Your task to perform on an android device: install app "Messages" Image 0: 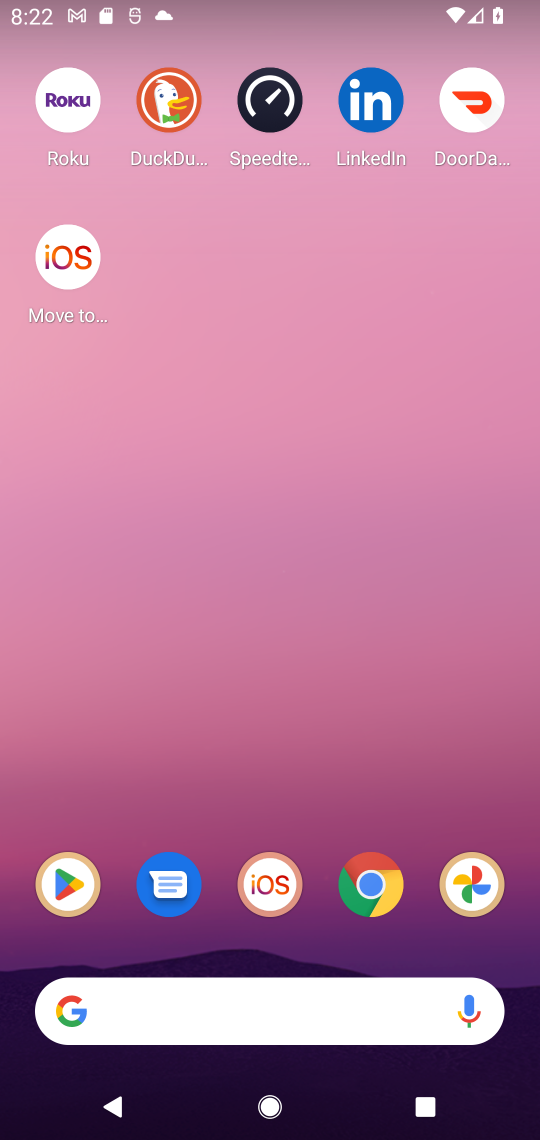
Step 0: click (54, 899)
Your task to perform on an android device: install app "Messages" Image 1: 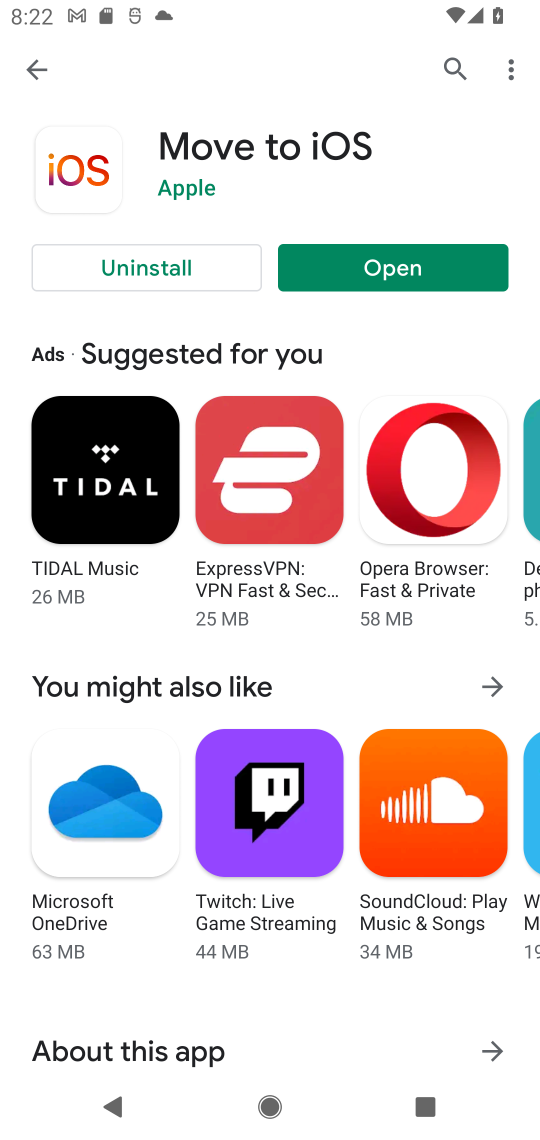
Step 1: click (451, 52)
Your task to perform on an android device: install app "Messages" Image 2: 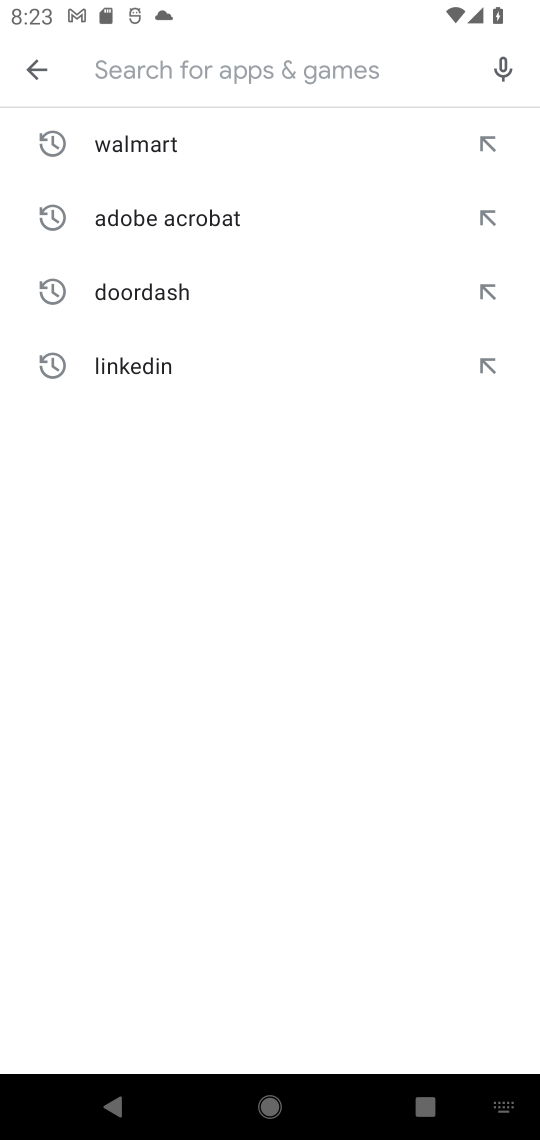
Step 2: type "messages"
Your task to perform on an android device: install app "Messages" Image 3: 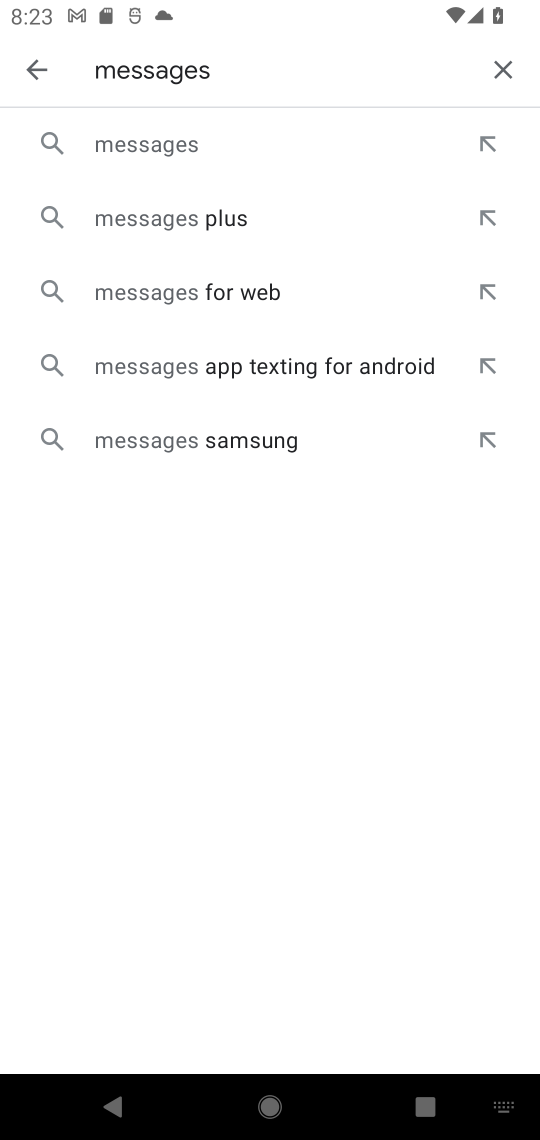
Step 3: click (193, 147)
Your task to perform on an android device: install app "Messages" Image 4: 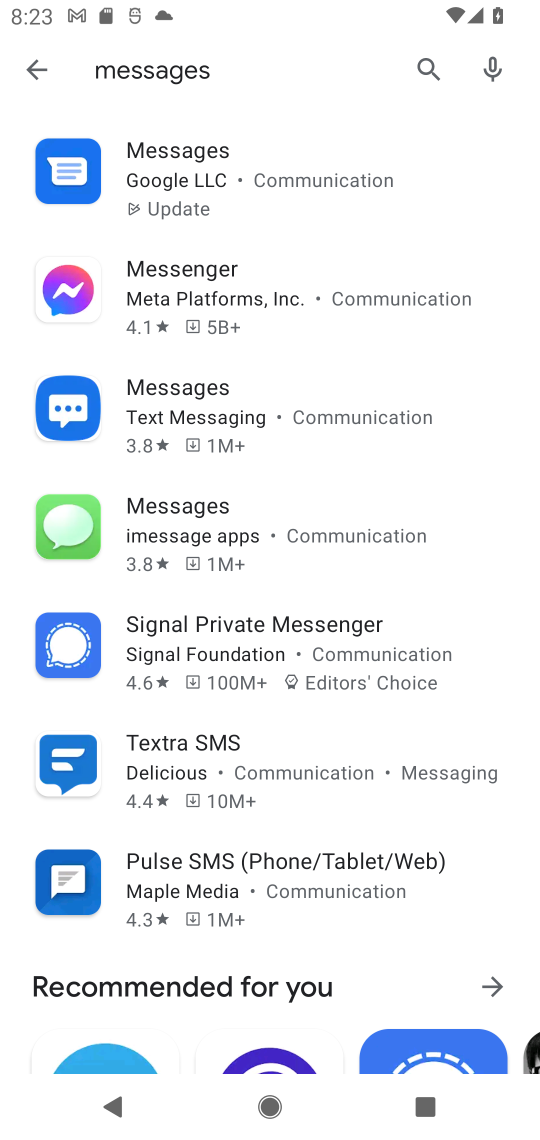
Step 4: click (193, 163)
Your task to perform on an android device: install app "Messages" Image 5: 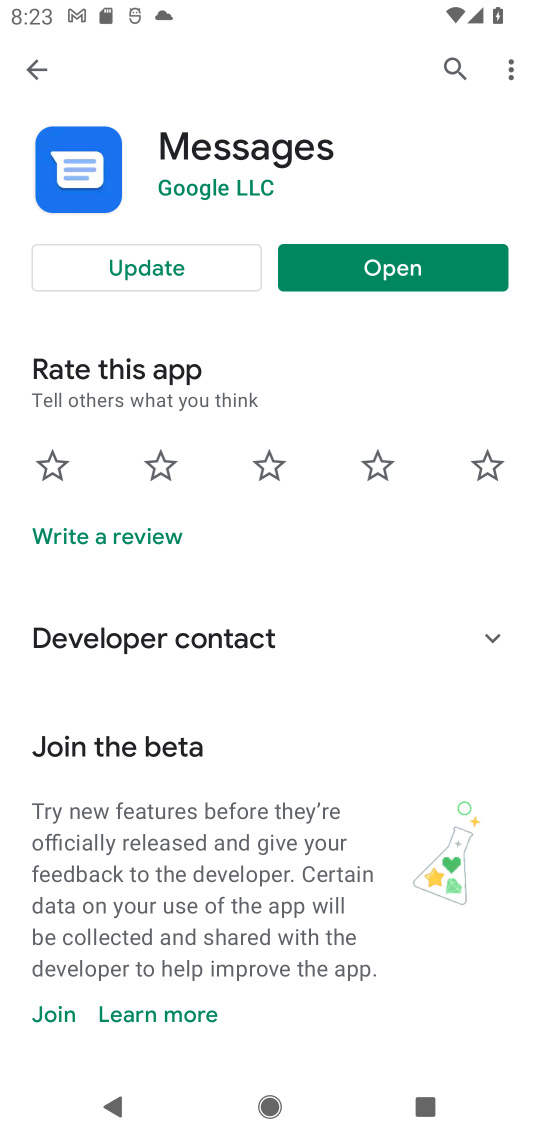
Step 5: task complete